Your task to perform on an android device: Open Yahoo.com Image 0: 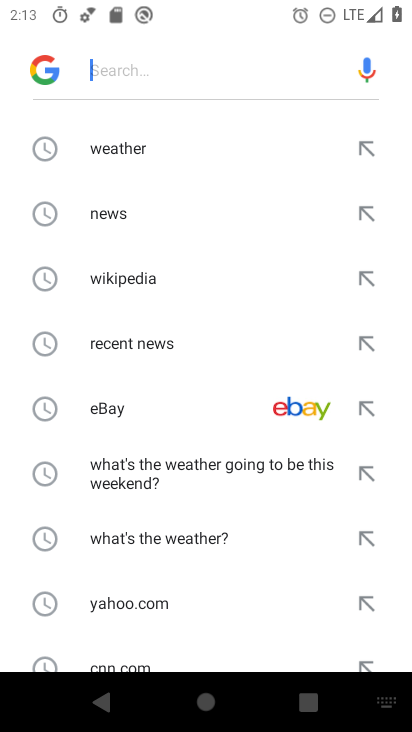
Step 0: press home button
Your task to perform on an android device: Open Yahoo.com Image 1: 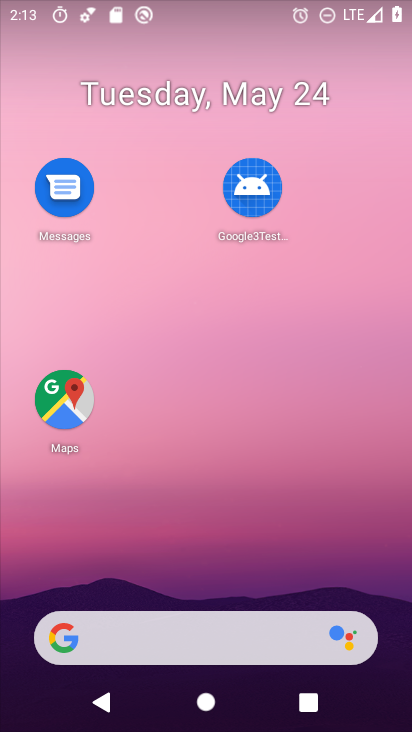
Step 1: drag from (193, 538) to (198, 15)
Your task to perform on an android device: Open Yahoo.com Image 2: 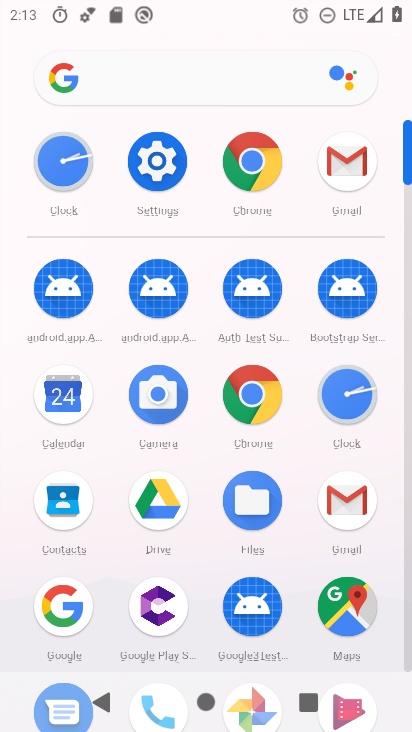
Step 2: click (253, 207)
Your task to perform on an android device: Open Yahoo.com Image 3: 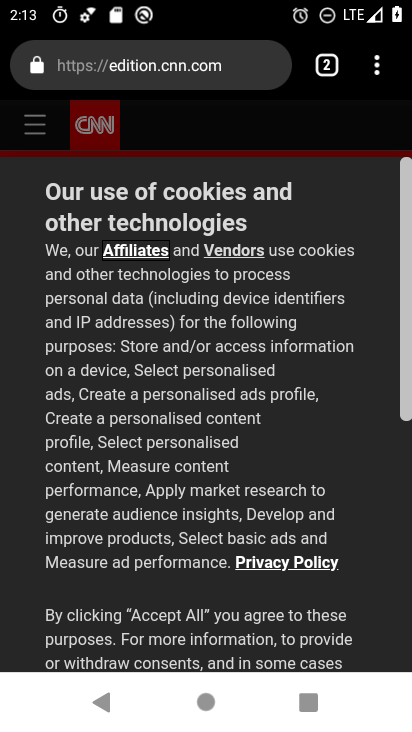
Step 3: click (183, 67)
Your task to perform on an android device: Open Yahoo.com Image 4: 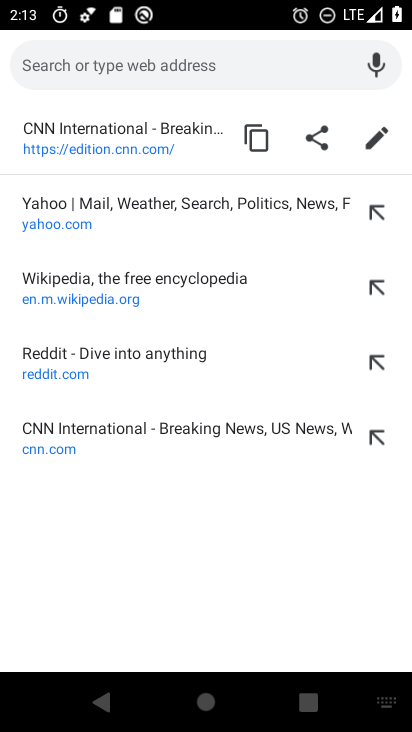
Step 4: click (65, 199)
Your task to perform on an android device: Open Yahoo.com Image 5: 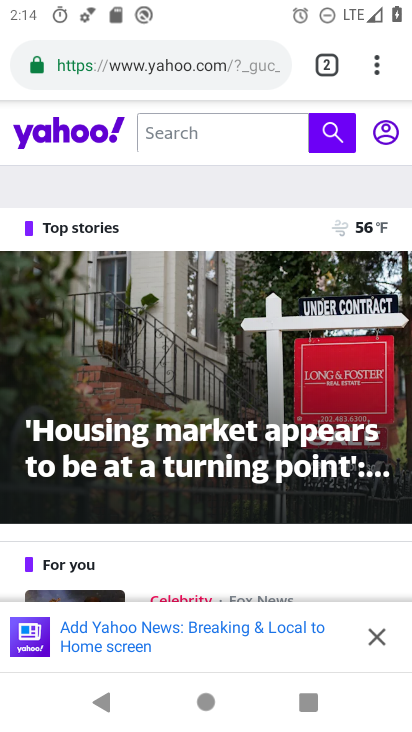
Step 5: task complete